Your task to perform on an android device: add a label to a message in the gmail app Image 0: 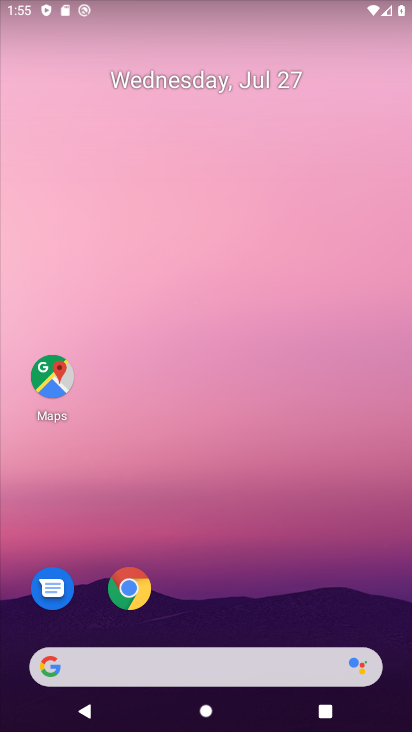
Step 0: click (190, 130)
Your task to perform on an android device: add a label to a message in the gmail app Image 1: 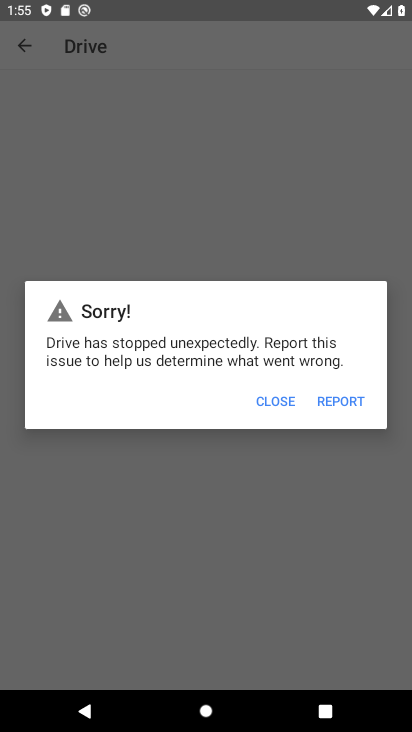
Step 1: click (191, 603)
Your task to perform on an android device: add a label to a message in the gmail app Image 2: 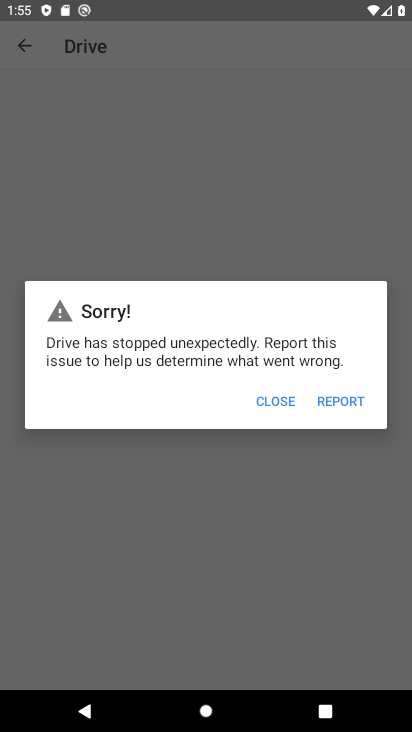
Step 2: press home button
Your task to perform on an android device: add a label to a message in the gmail app Image 3: 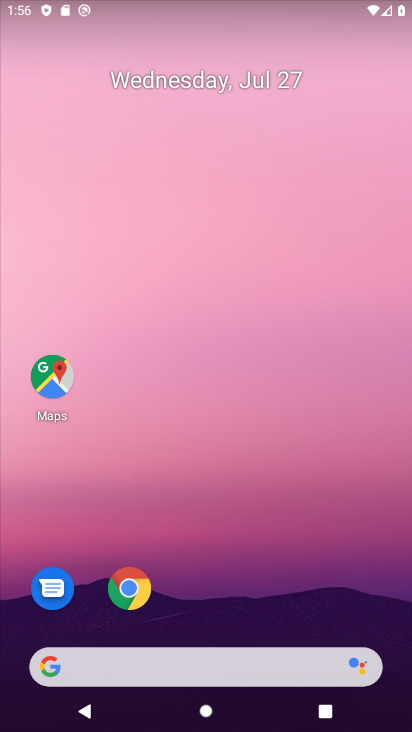
Step 3: drag from (217, 595) to (222, 135)
Your task to perform on an android device: add a label to a message in the gmail app Image 4: 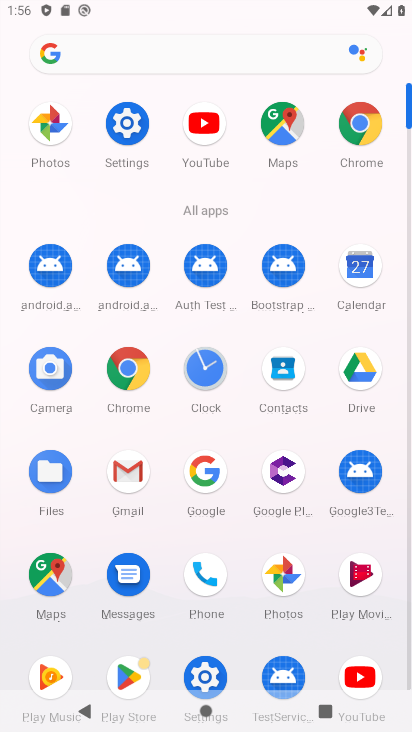
Step 4: click (123, 456)
Your task to perform on an android device: add a label to a message in the gmail app Image 5: 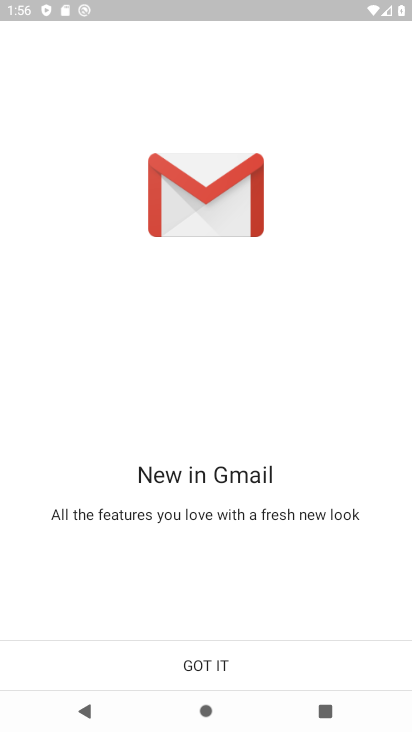
Step 5: click (211, 662)
Your task to perform on an android device: add a label to a message in the gmail app Image 6: 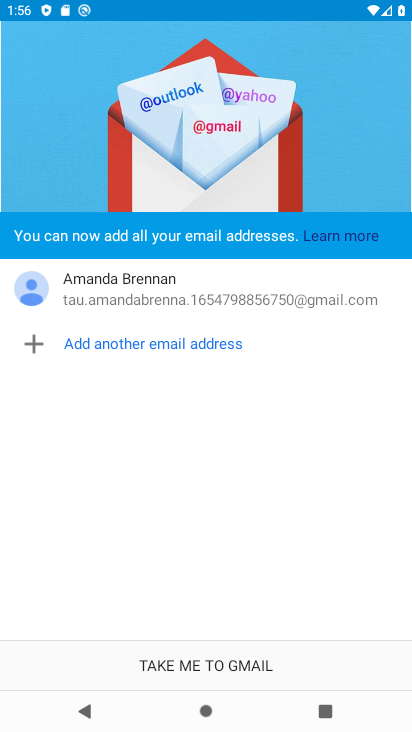
Step 6: click (211, 663)
Your task to perform on an android device: add a label to a message in the gmail app Image 7: 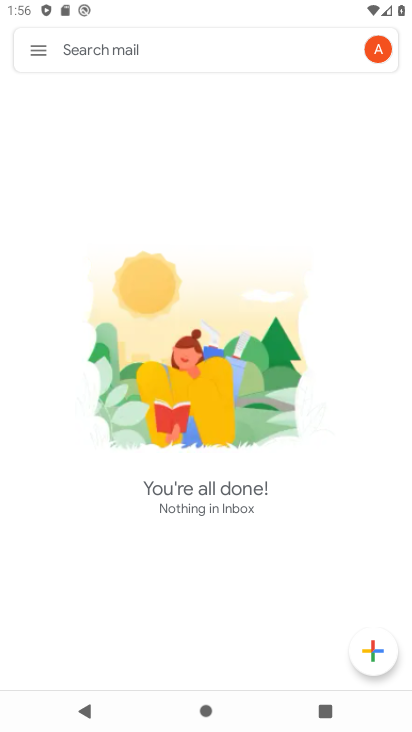
Step 7: click (46, 62)
Your task to perform on an android device: add a label to a message in the gmail app Image 8: 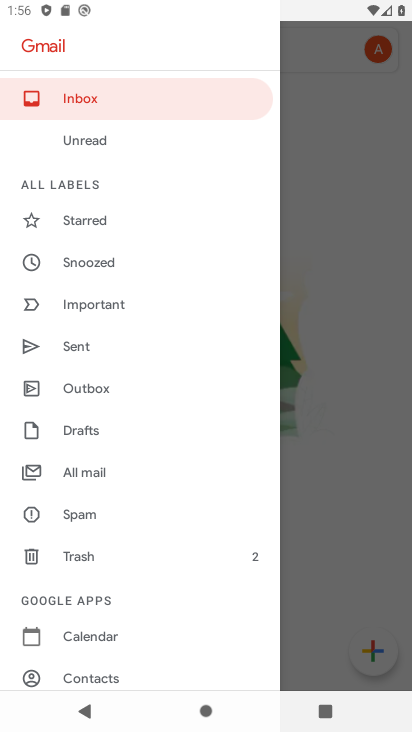
Step 8: click (99, 479)
Your task to perform on an android device: add a label to a message in the gmail app Image 9: 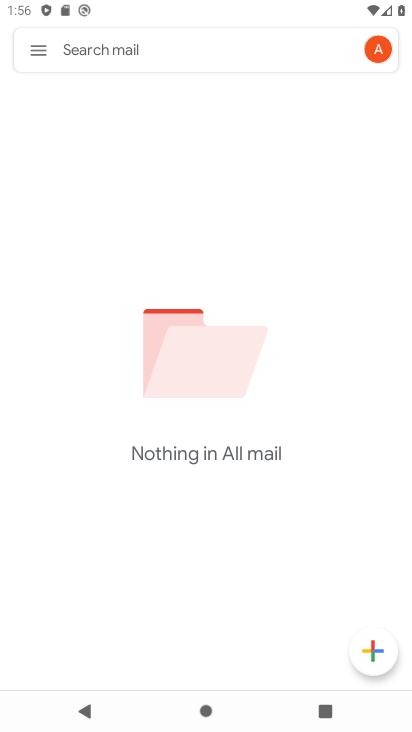
Step 9: click (31, 48)
Your task to perform on an android device: add a label to a message in the gmail app Image 10: 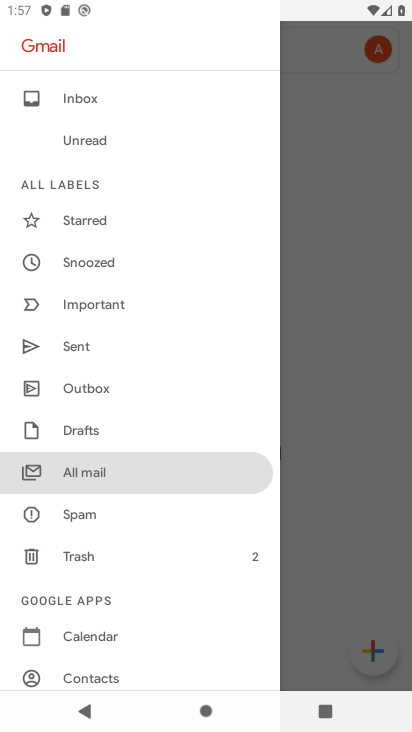
Step 10: click (89, 484)
Your task to perform on an android device: add a label to a message in the gmail app Image 11: 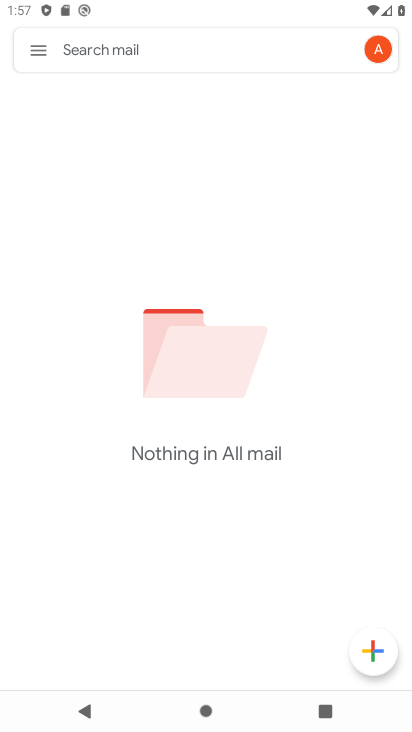
Step 11: task complete